Your task to perform on an android device: Open Chrome and go to settings Image 0: 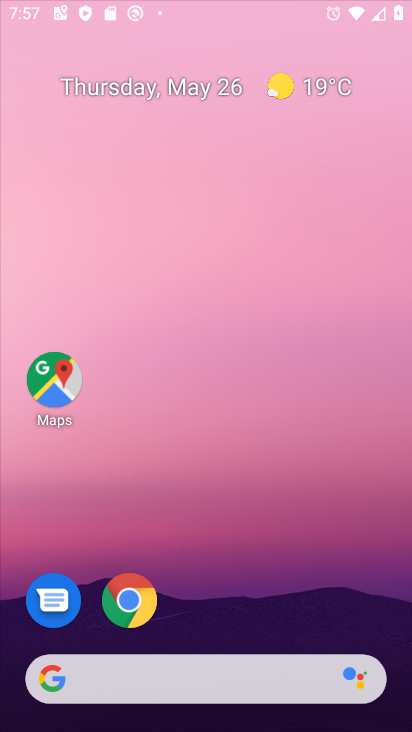
Step 0: press home button
Your task to perform on an android device: Open Chrome and go to settings Image 1: 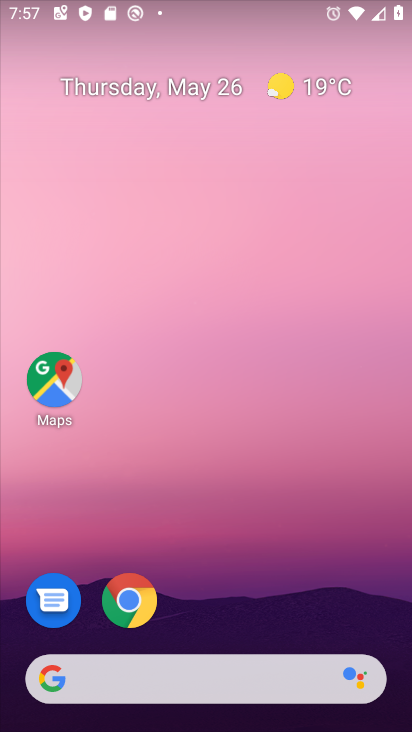
Step 1: click (122, 598)
Your task to perform on an android device: Open Chrome and go to settings Image 2: 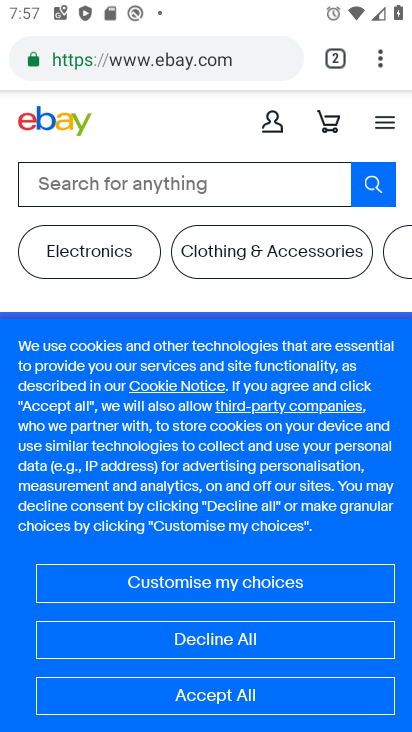
Step 2: task complete